Your task to perform on an android device: Check the weather Image 0: 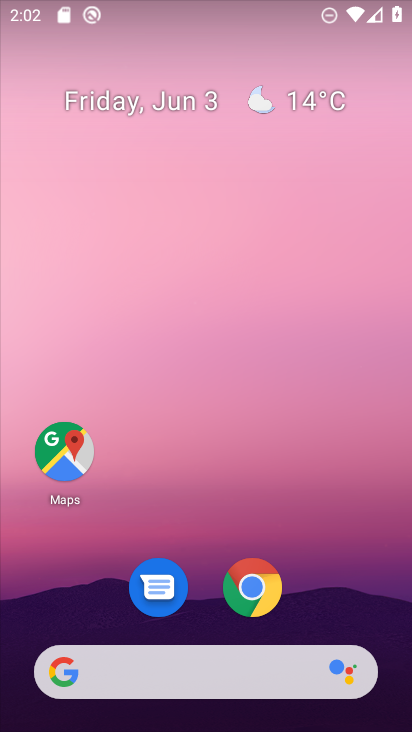
Step 0: click (239, 671)
Your task to perform on an android device: Check the weather Image 1: 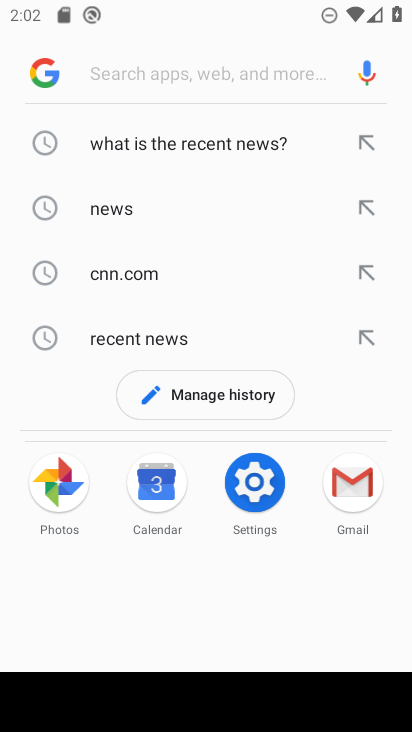
Step 1: type "weather"
Your task to perform on an android device: Check the weather Image 2: 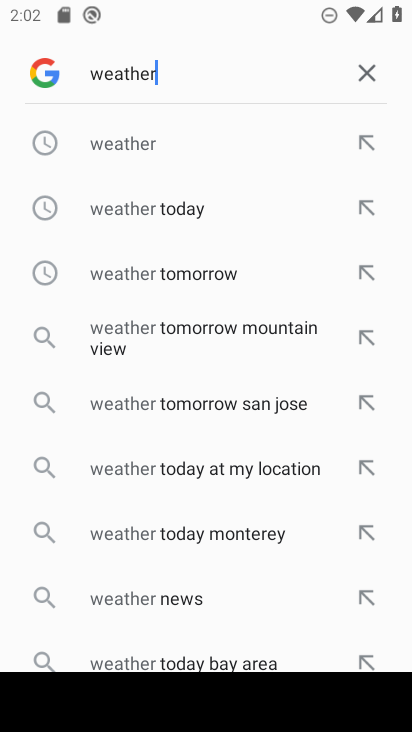
Step 2: click (179, 121)
Your task to perform on an android device: Check the weather Image 3: 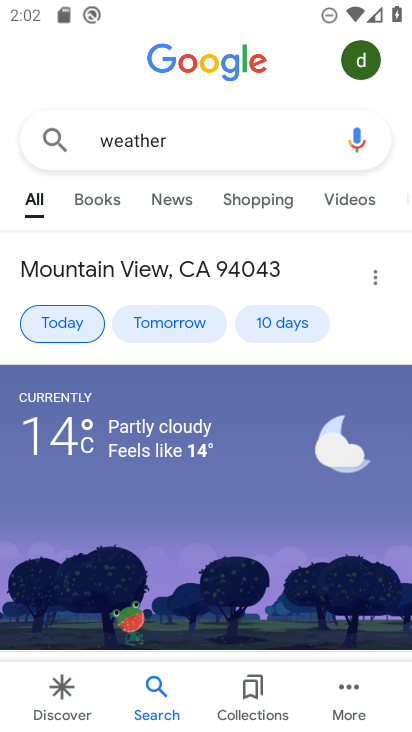
Step 3: task complete